Your task to perform on an android device: change your default location settings in chrome Image 0: 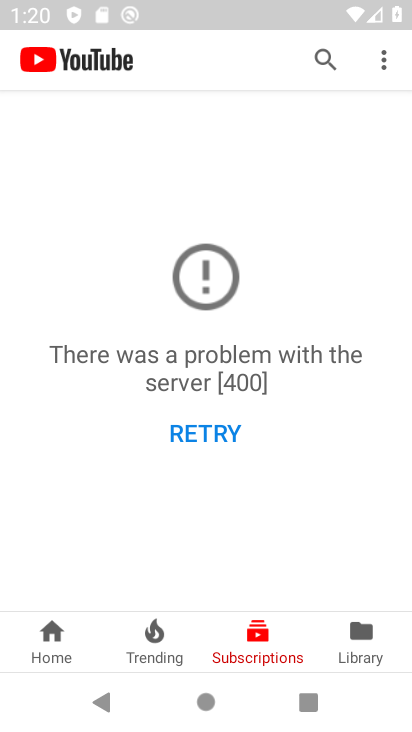
Step 0: press home button
Your task to perform on an android device: change your default location settings in chrome Image 1: 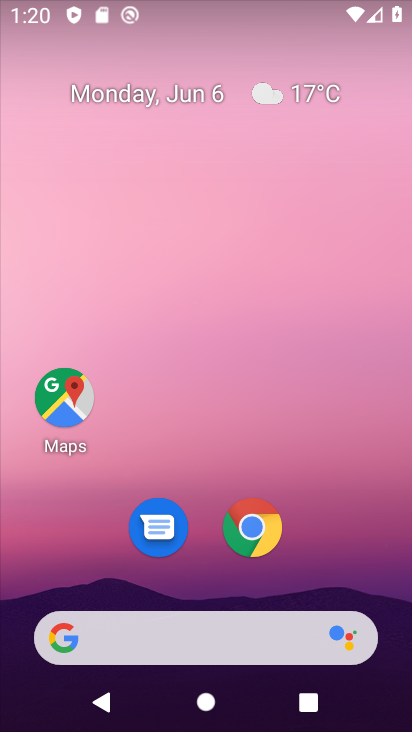
Step 1: click (250, 530)
Your task to perform on an android device: change your default location settings in chrome Image 2: 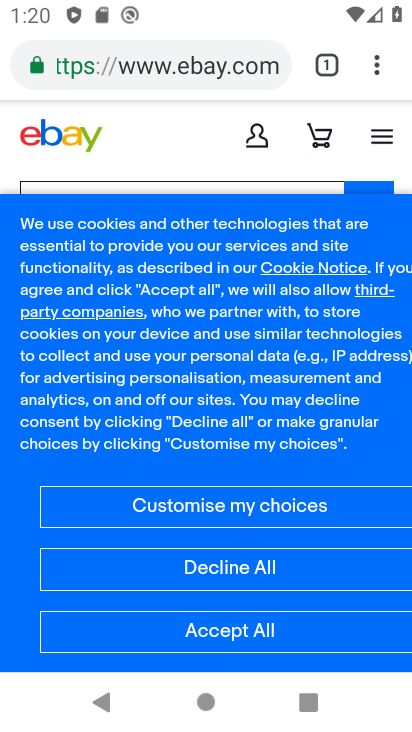
Step 2: click (376, 70)
Your task to perform on an android device: change your default location settings in chrome Image 3: 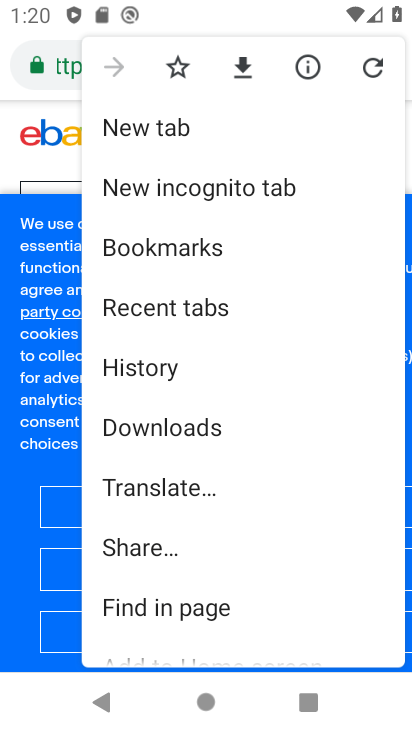
Step 3: drag from (156, 621) to (143, 270)
Your task to perform on an android device: change your default location settings in chrome Image 4: 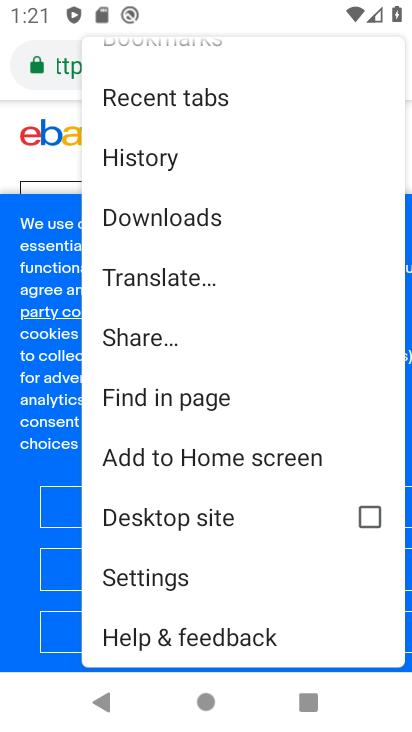
Step 4: click (153, 574)
Your task to perform on an android device: change your default location settings in chrome Image 5: 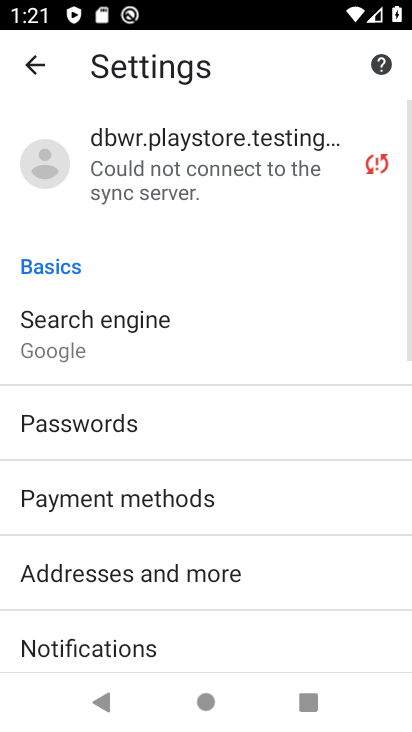
Step 5: drag from (147, 606) to (140, 259)
Your task to perform on an android device: change your default location settings in chrome Image 6: 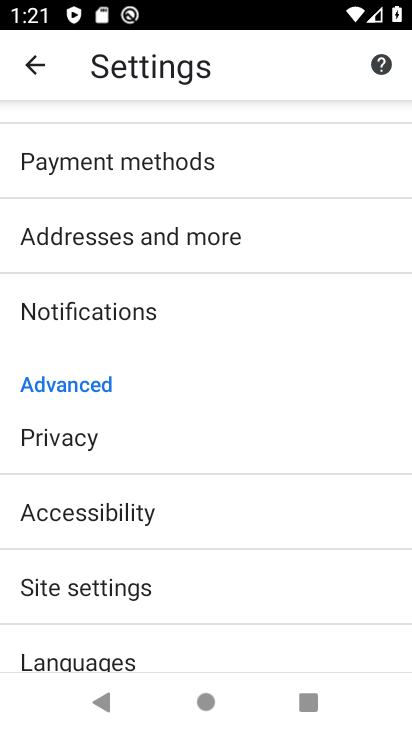
Step 6: drag from (147, 624) to (141, 159)
Your task to perform on an android device: change your default location settings in chrome Image 7: 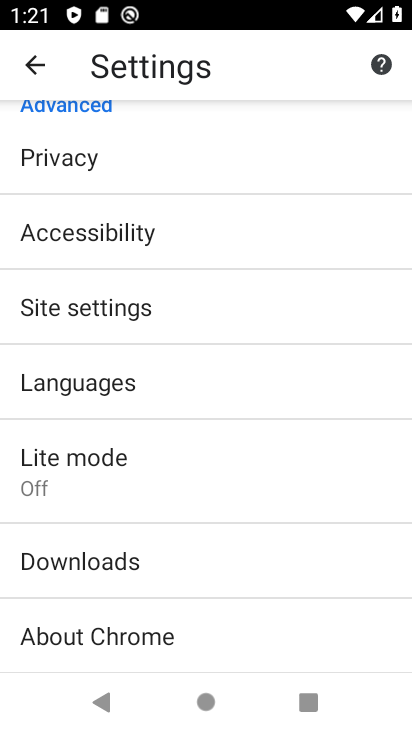
Step 7: click (89, 312)
Your task to perform on an android device: change your default location settings in chrome Image 8: 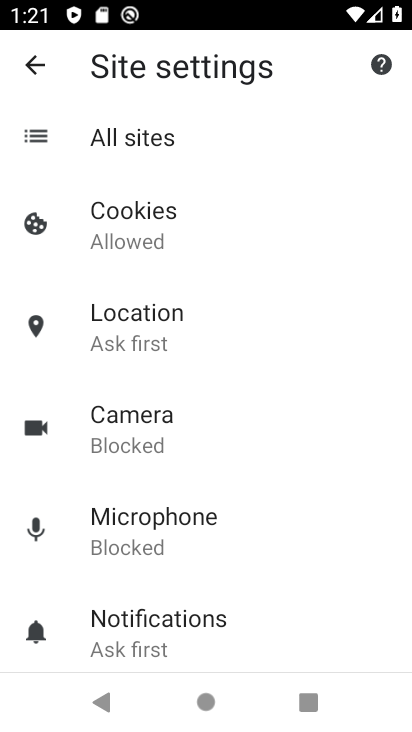
Step 8: drag from (169, 631) to (151, 499)
Your task to perform on an android device: change your default location settings in chrome Image 9: 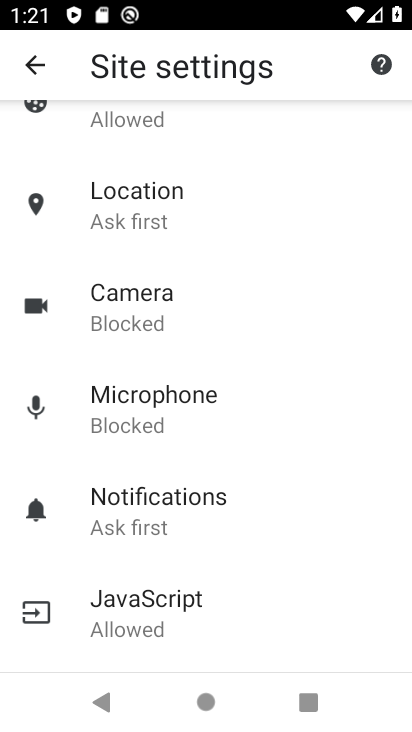
Step 9: click (134, 212)
Your task to perform on an android device: change your default location settings in chrome Image 10: 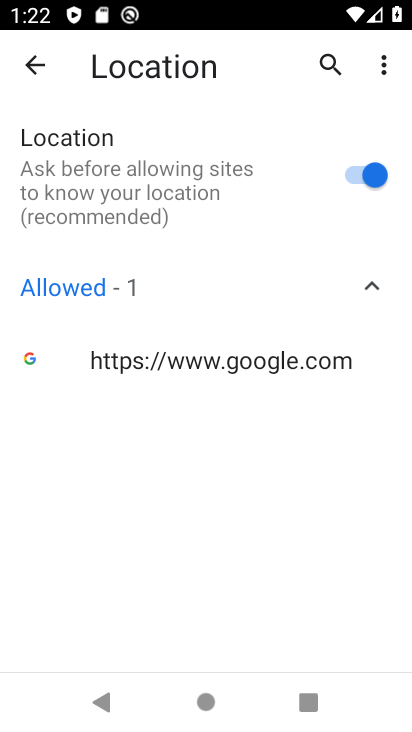
Step 10: click (353, 175)
Your task to perform on an android device: change your default location settings in chrome Image 11: 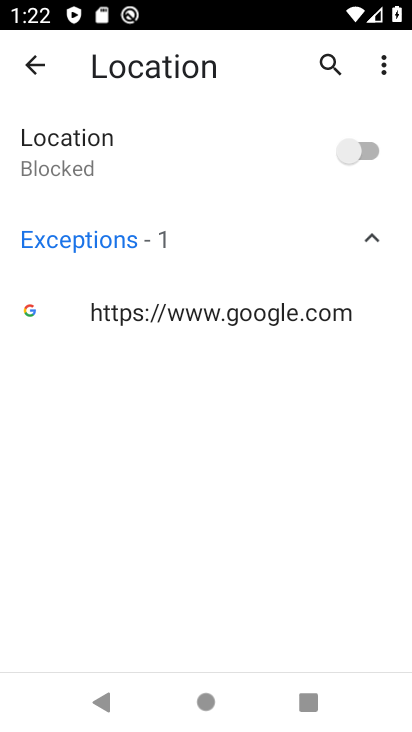
Step 11: task complete